Your task to perform on an android device: turn on javascript in the chrome app Image 0: 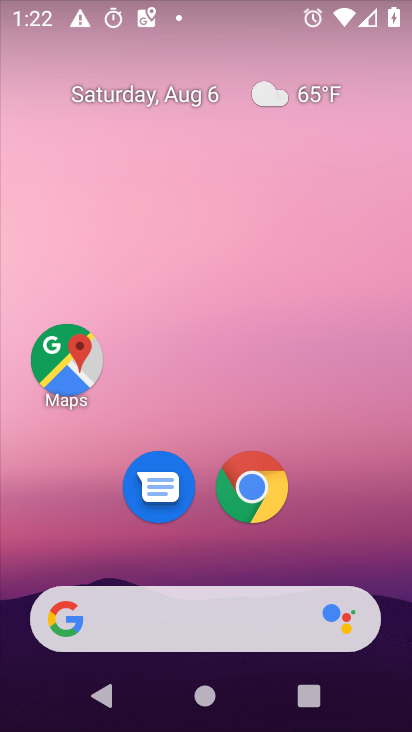
Step 0: click (245, 493)
Your task to perform on an android device: turn on javascript in the chrome app Image 1: 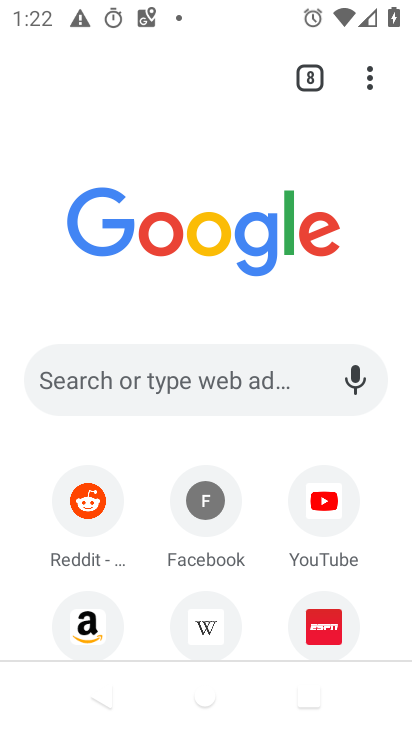
Step 1: drag from (370, 69) to (153, 519)
Your task to perform on an android device: turn on javascript in the chrome app Image 2: 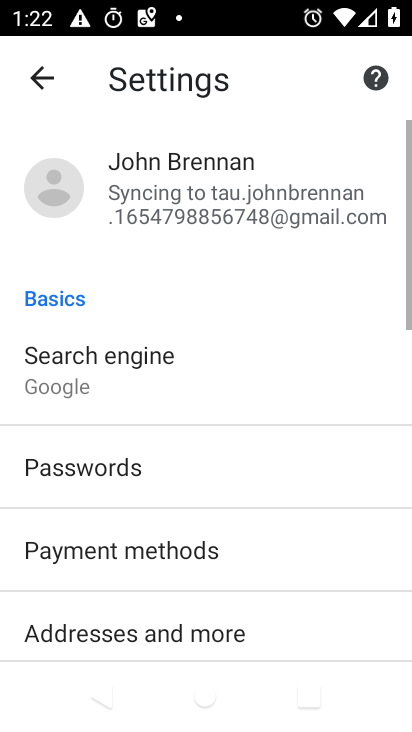
Step 2: drag from (140, 624) to (212, 130)
Your task to perform on an android device: turn on javascript in the chrome app Image 3: 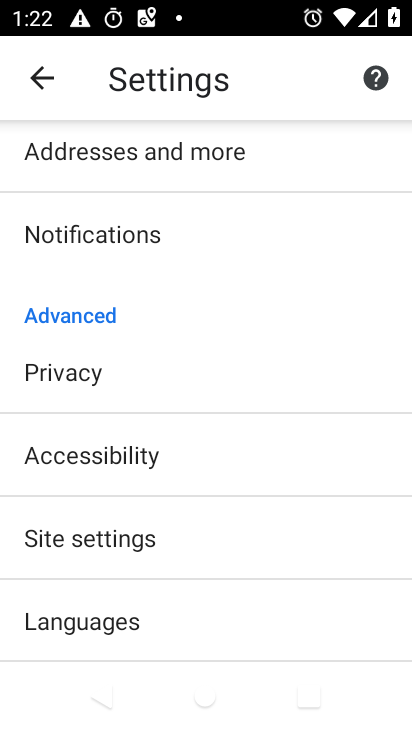
Step 3: drag from (110, 581) to (165, 264)
Your task to perform on an android device: turn on javascript in the chrome app Image 4: 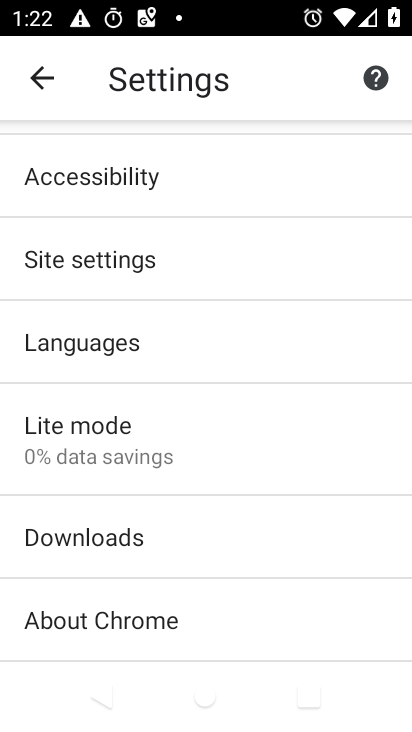
Step 4: click (131, 253)
Your task to perform on an android device: turn on javascript in the chrome app Image 5: 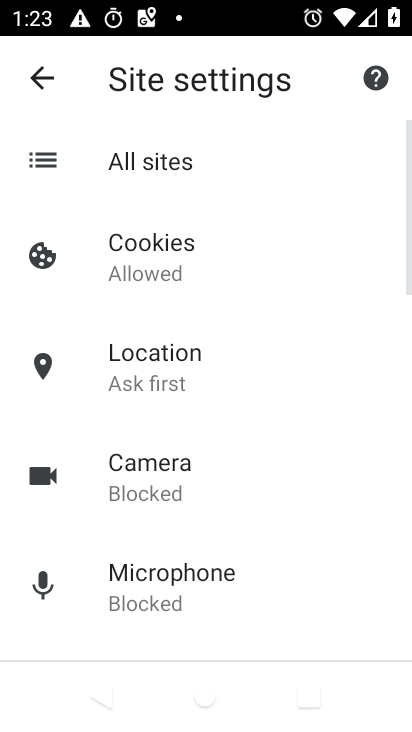
Step 5: drag from (184, 617) to (248, 109)
Your task to perform on an android device: turn on javascript in the chrome app Image 6: 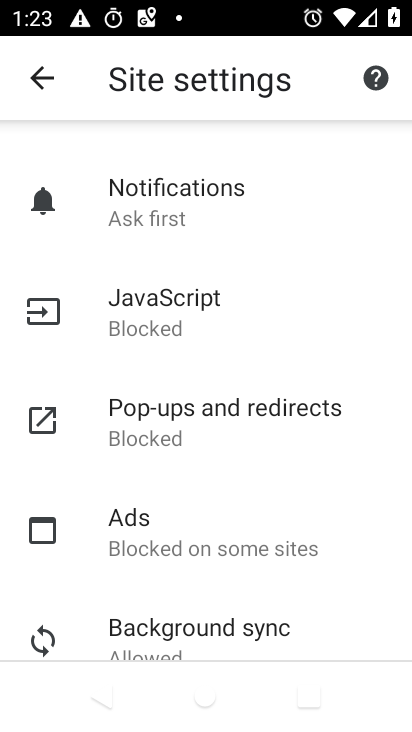
Step 6: click (183, 311)
Your task to perform on an android device: turn on javascript in the chrome app Image 7: 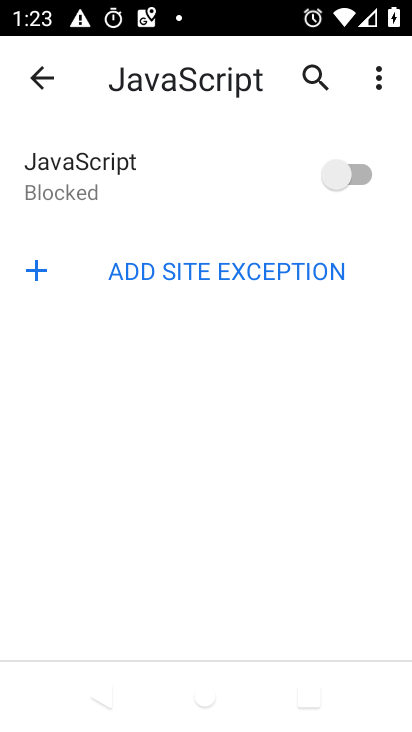
Step 7: click (330, 173)
Your task to perform on an android device: turn on javascript in the chrome app Image 8: 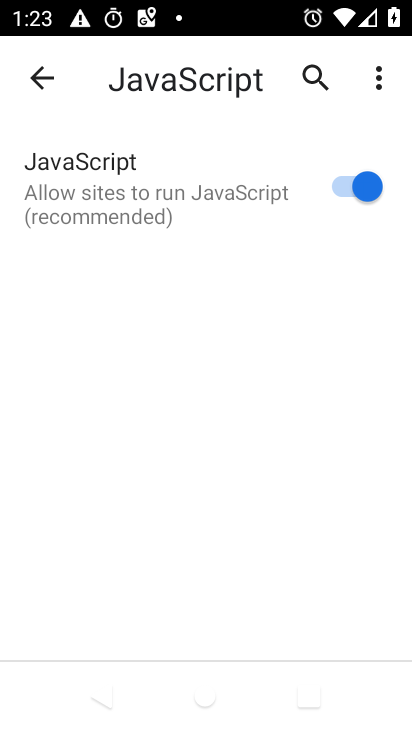
Step 8: task complete